Your task to perform on an android device: View the shopping cart on bestbuy.com. Image 0: 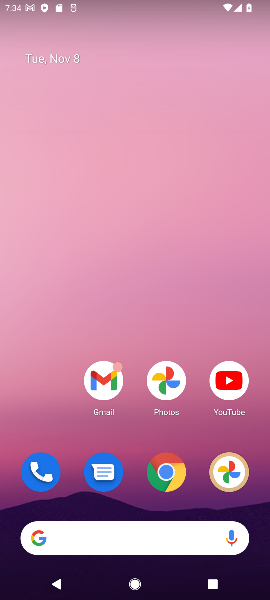
Step 0: click (161, 478)
Your task to perform on an android device: View the shopping cart on bestbuy.com. Image 1: 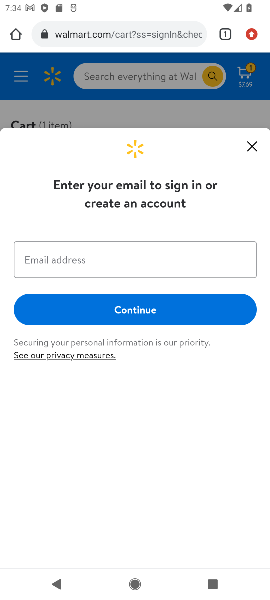
Step 1: click (156, 32)
Your task to perform on an android device: View the shopping cart on bestbuy.com. Image 2: 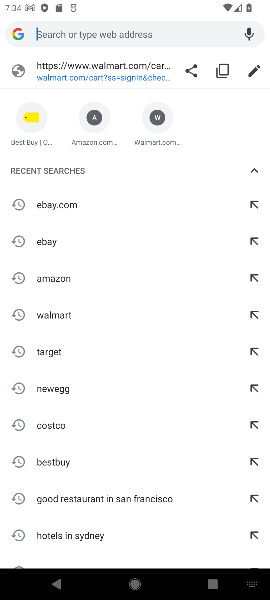
Step 2: click (58, 465)
Your task to perform on an android device: View the shopping cart on bestbuy.com. Image 3: 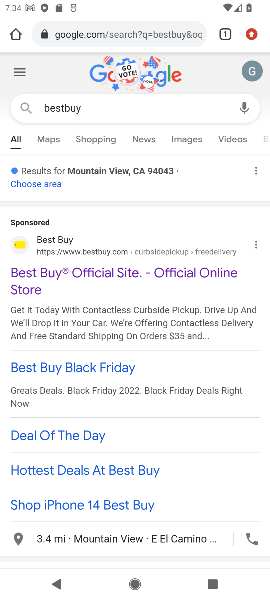
Step 3: click (111, 275)
Your task to perform on an android device: View the shopping cart on bestbuy.com. Image 4: 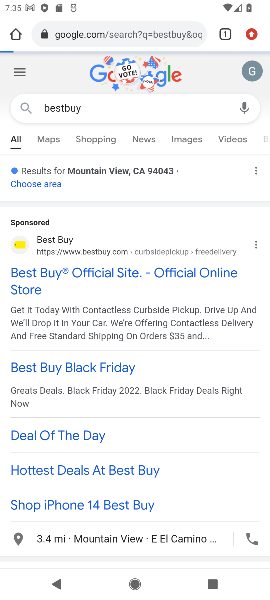
Step 4: click (130, 269)
Your task to perform on an android device: View the shopping cart on bestbuy.com. Image 5: 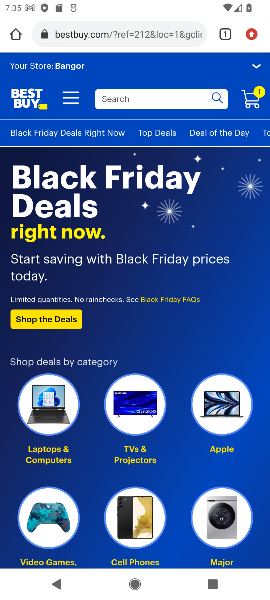
Step 5: click (250, 91)
Your task to perform on an android device: View the shopping cart on bestbuy.com. Image 6: 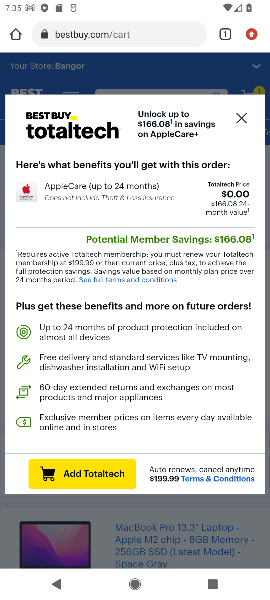
Step 6: click (239, 117)
Your task to perform on an android device: View the shopping cart on bestbuy.com. Image 7: 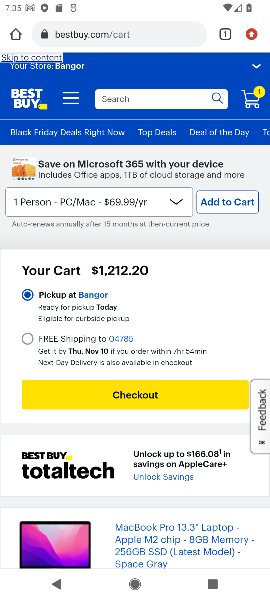
Step 7: task complete